Your task to perform on an android device: turn on the 12-hour format for clock Image 0: 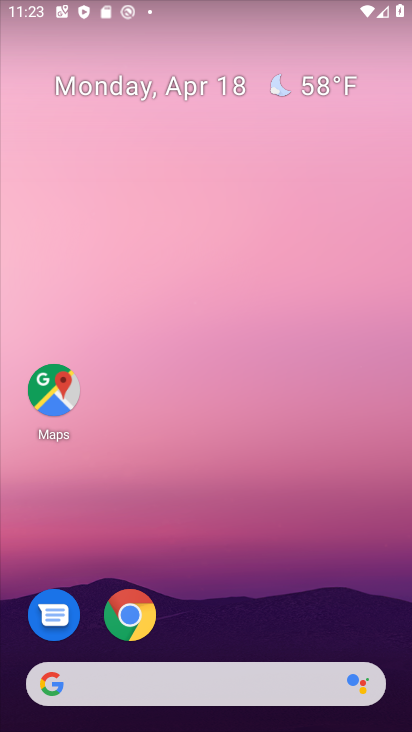
Step 0: drag from (371, 627) to (368, 93)
Your task to perform on an android device: turn on the 12-hour format for clock Image 1: 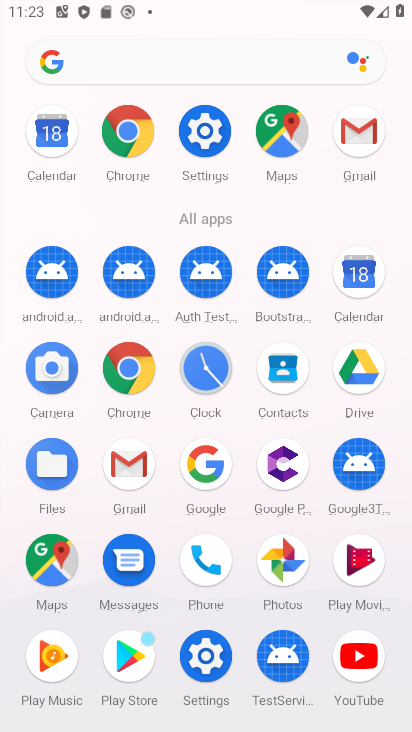
Step 1: click (206, 370)
Your task to perform on an android device: turn on the 12-hour format for clock Image 2: 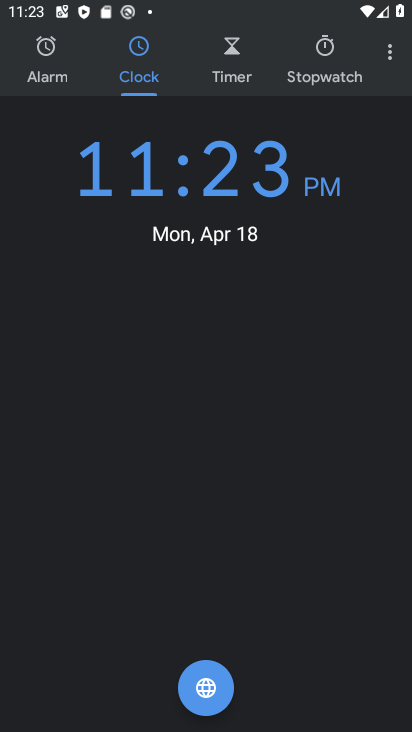
Step 2: click (394, 53)
Your task to perform on an android device: turn on the 12-hour format for clock Image 3: 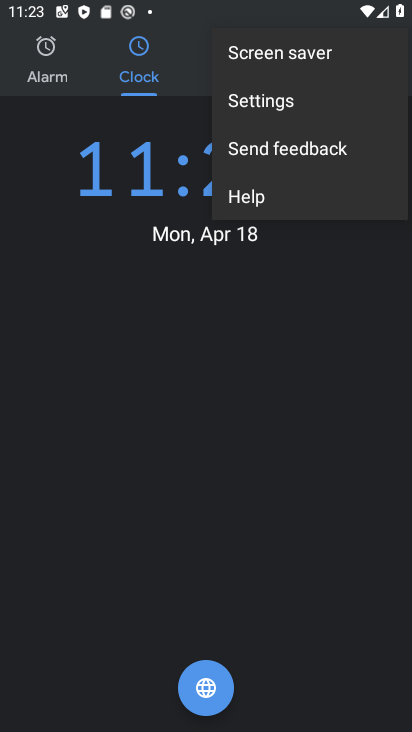
Step 3: drag from (379, 117) to (277, 91)
Your task to perform on an android device: turn on the 12-hour format for clock Image 4: 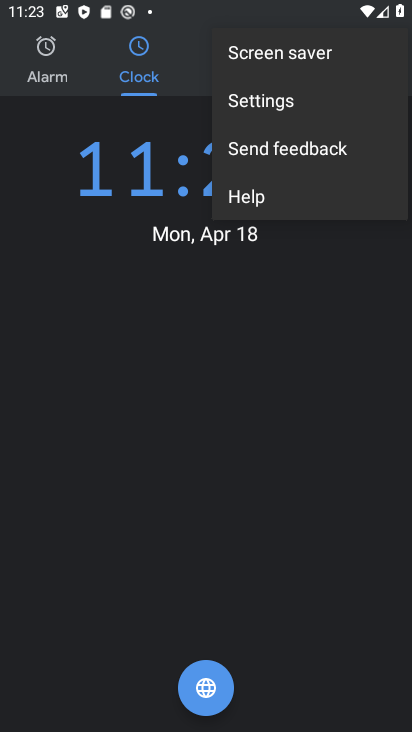
Step 4: click (300, 103)
Your task to perform on an android device: turn on the 12-hour format for clock Image 5: 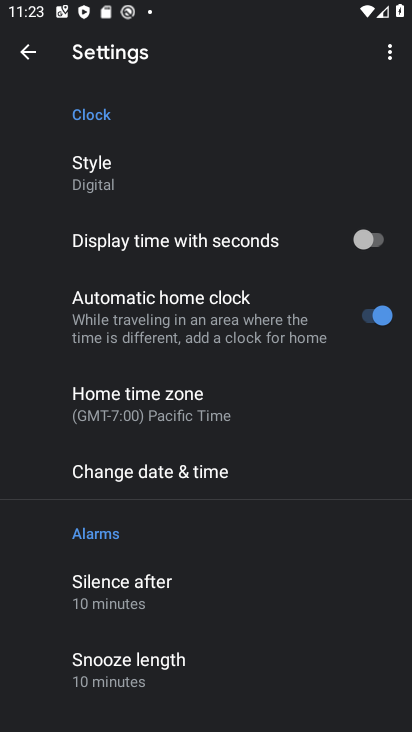
Step 5: click (196, 484)
Your task to perform on an android device: turn on the 12-hour format for clock Image 6: 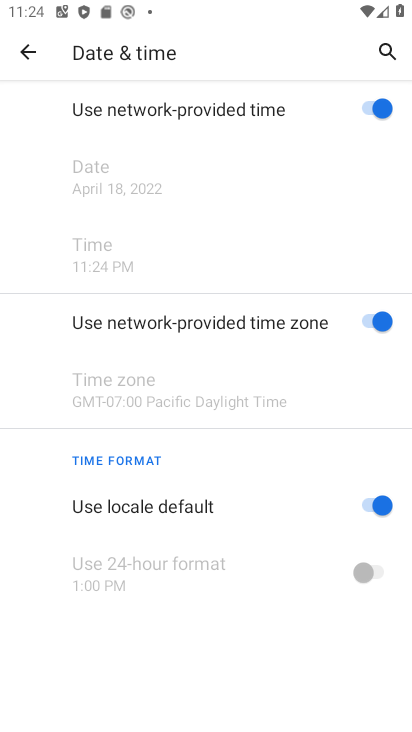
Step 6: task complete